Your task to perform on an android device: Open the map Image 0: 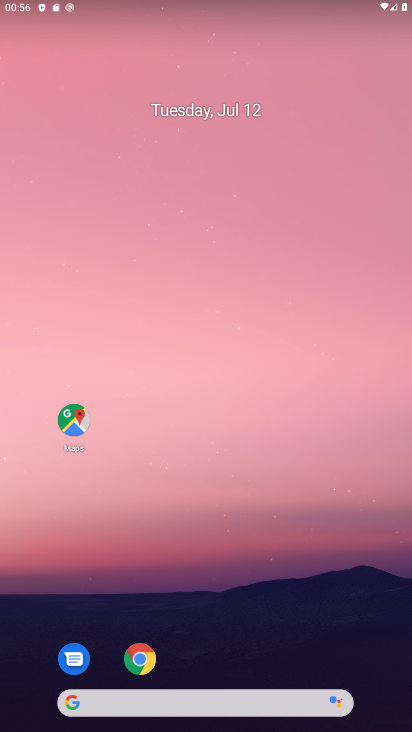
Step 0: click (289, 251)
Your task to perform on an android device: Open the map Image 1: 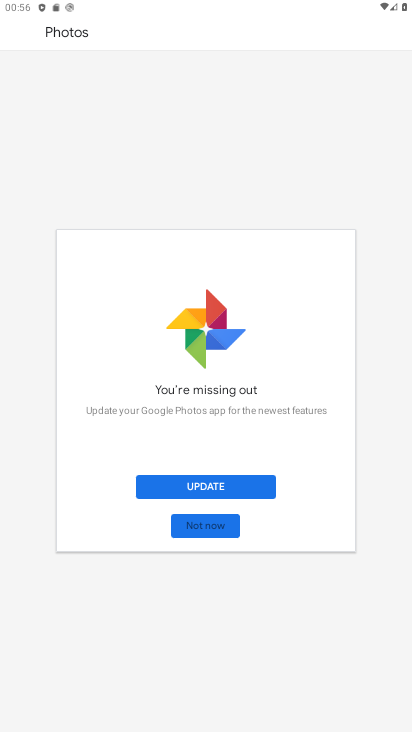
Step 1: press home button
Your task to perform on an android device: Open the map Image 2: 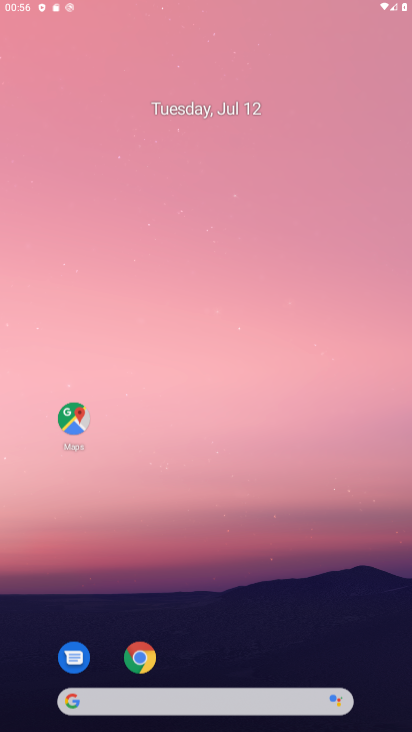
Step 2: drag from (189, 678) to (237, 210)
Your task to perform on an android device: Open the map Image 3: 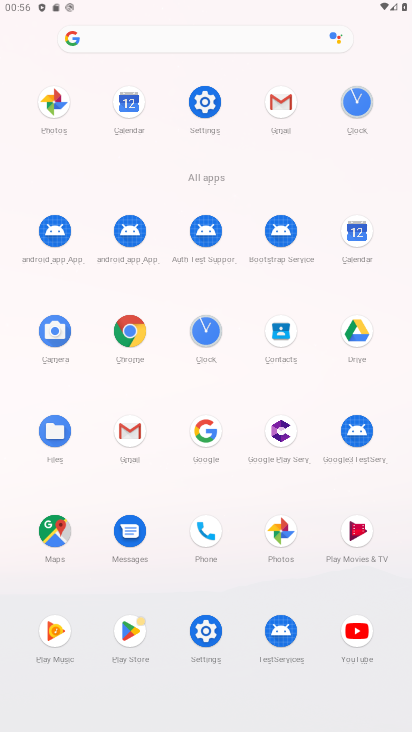
Step 3: click (59, 526)
Your task to perform on an android device: Open the map Image 4: 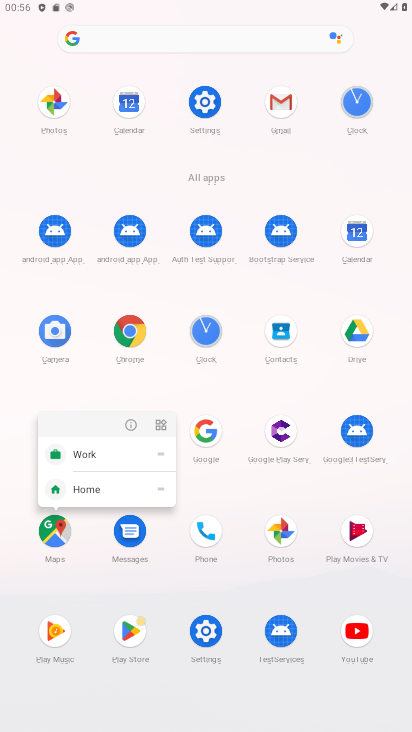
Step 4: click (131, 418)
Your task to perform on an android device: Open the map Image 5: 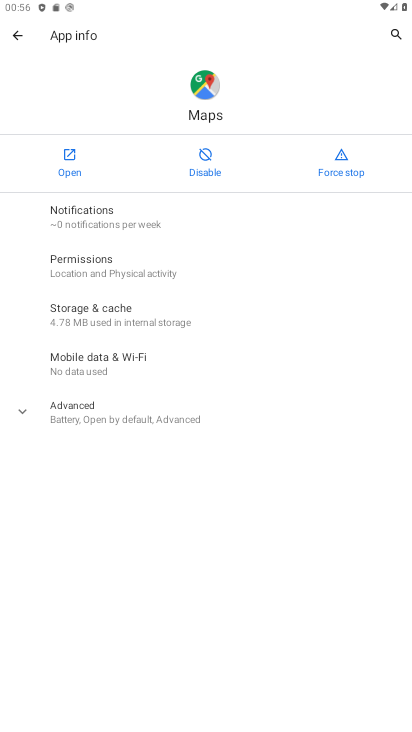
Step 5: click (67, 148)
Your task to perform on an android device: Open the map Image 6: 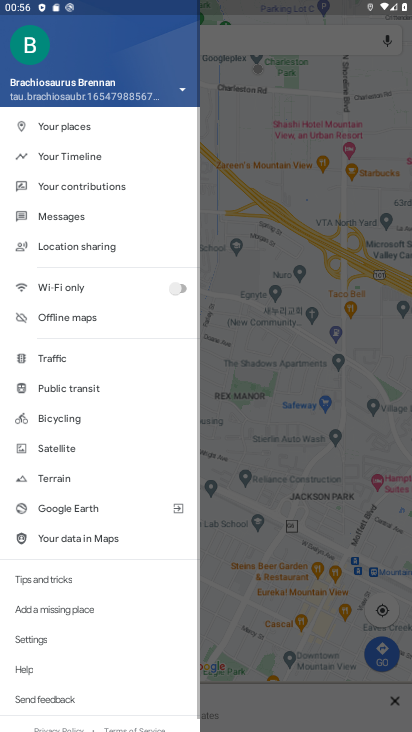
Step 6: drag from (227, 643) to (283, 424)
Your task to perform on an android device: Open the map Image 7: 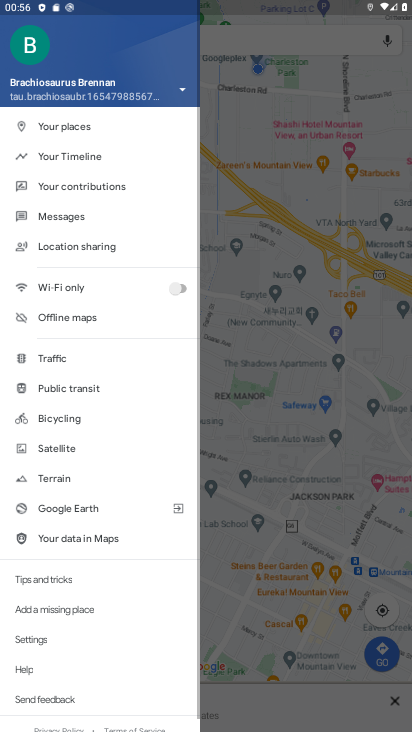
Step 7: click (226, 36)
Your task to perform on an android device: Open the map Image 8: 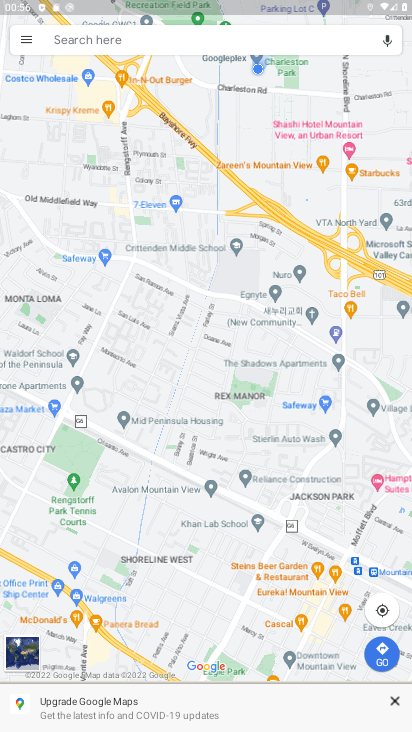
Step 8: task complete